Your task to perform on an android device: clear all cookies in the chrome app Image 0: 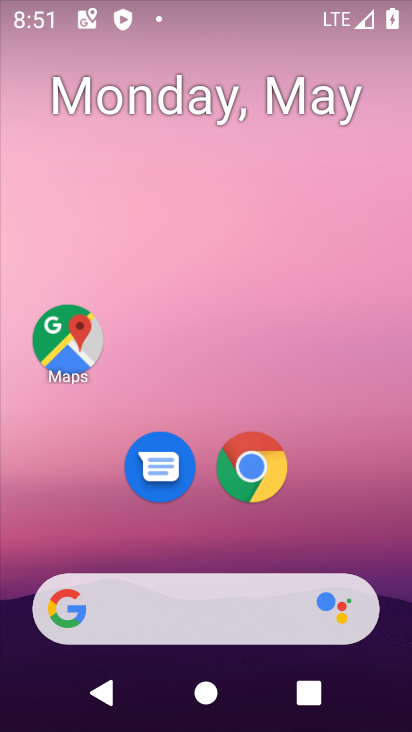
Step 0: click (263, 454)
Your task to perform on an android device: clear all cookies in the chrome app Image 1: 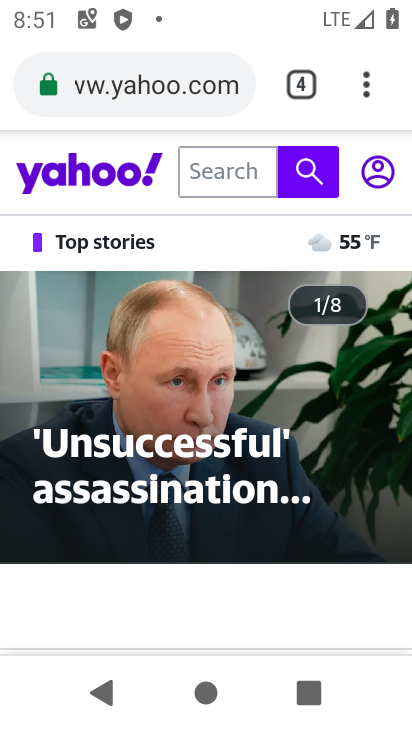
Step 1: click (369, 87)
Your task to perform on an android device: clear all cookies in the chrome app Image 2: 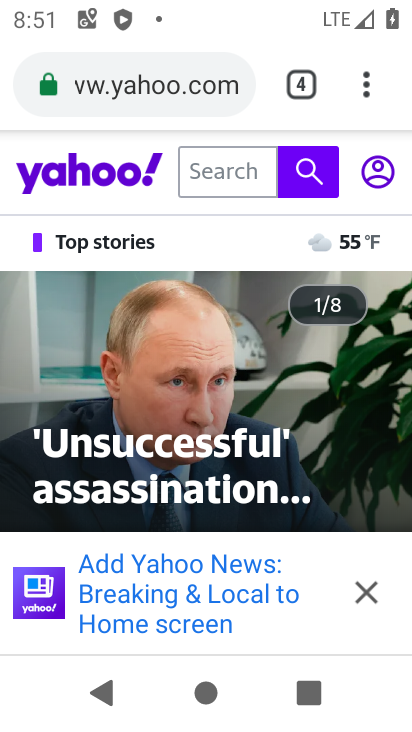
Step 2: click (371, 83)
Your task to perform on an android device: clear all cookies in the chrome app Image 3: 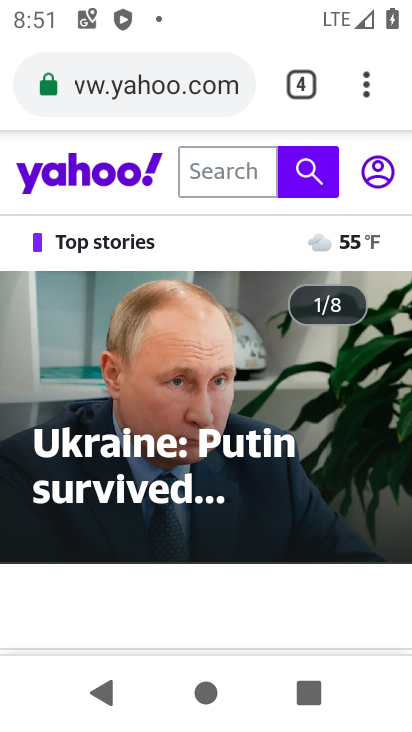
Step 3: click (368, 72)
Your task to perform on an android device: clear all cookies in the chrome app Image 4: 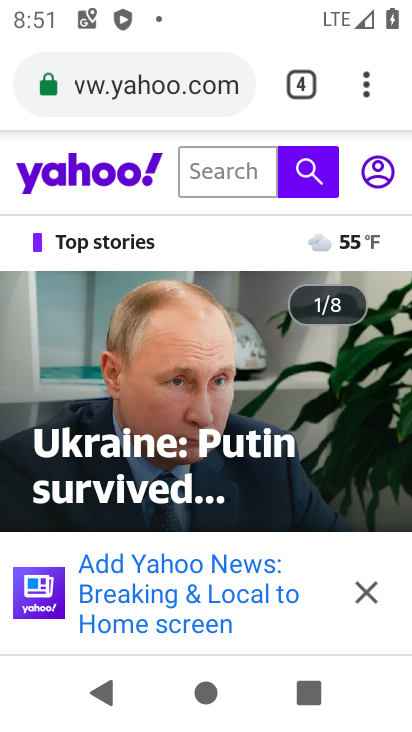
Step 4: click (359, 85)
Your task to perform on an android device: clear all cookies in the chrome app Image 5: 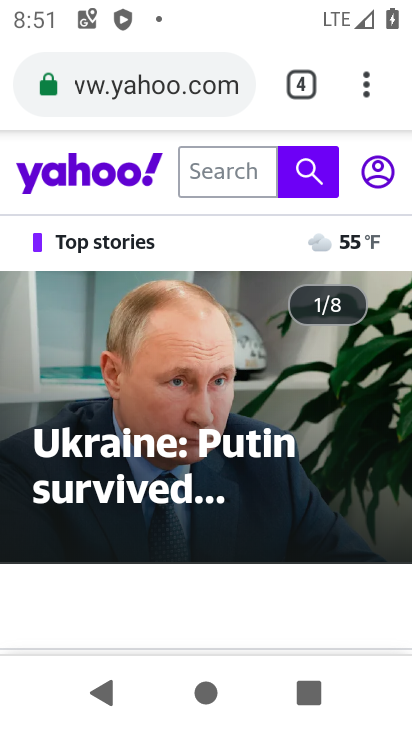
Step 5: click (366, 84)
Your task to perform on an android device: clear all cookies in the chrome app Image 6: 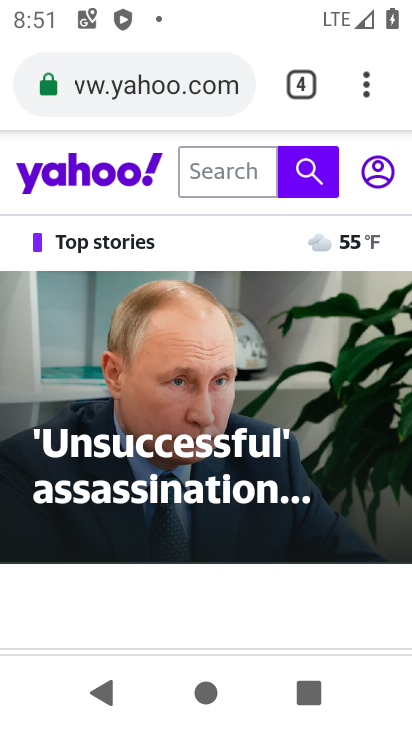
Step 6: click (372, 85)
Your task to perform on an android device: clear all cookies in the chrome app Image 7: 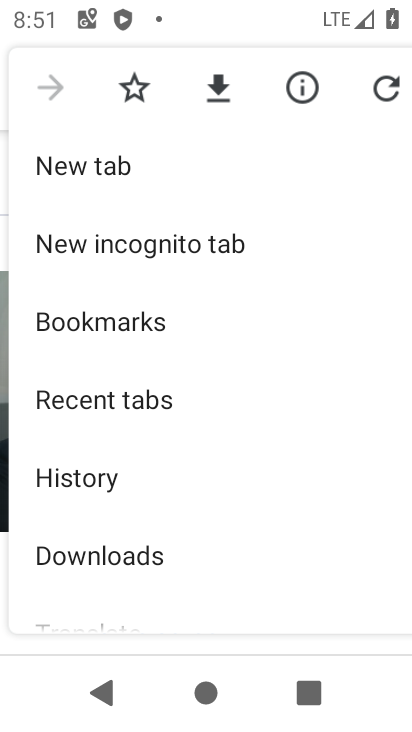
Step 7: click (144, 481)
Your task to perform on an android device: clear all cookies in the chrome app Image 8: 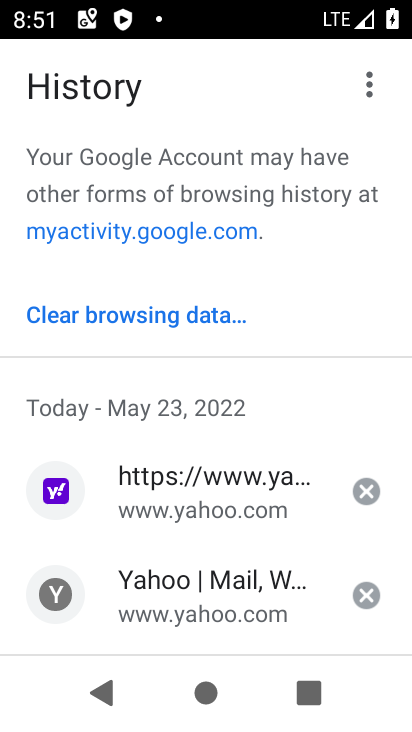
Step 8: click (170, 310)
Your task to perform on an android device: clear all cookies in the chrome app Image 9: 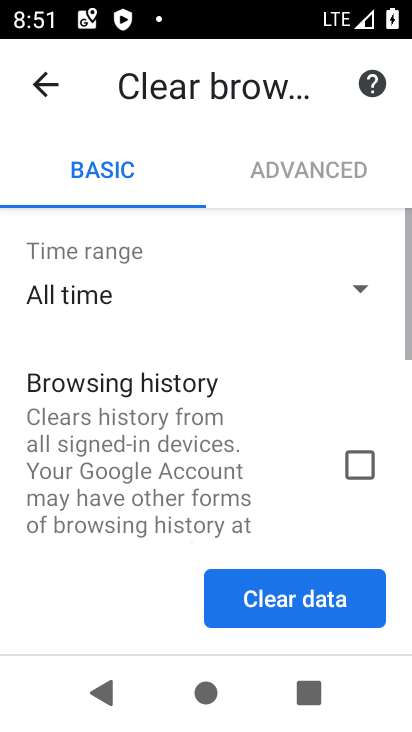
Step 9: click (304, 593)
Your task to perform on an android device: clear all cookies in the chrome app Image 10: 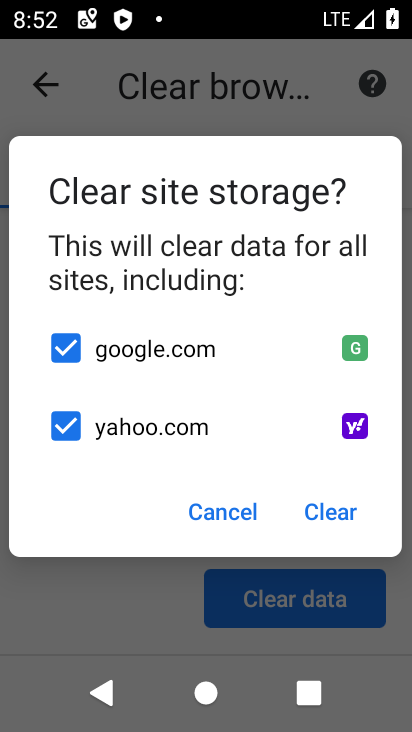
Step 10: click (329, 507)
Your task to perform on an android device: clear all cookies in the chrome app Image 11: 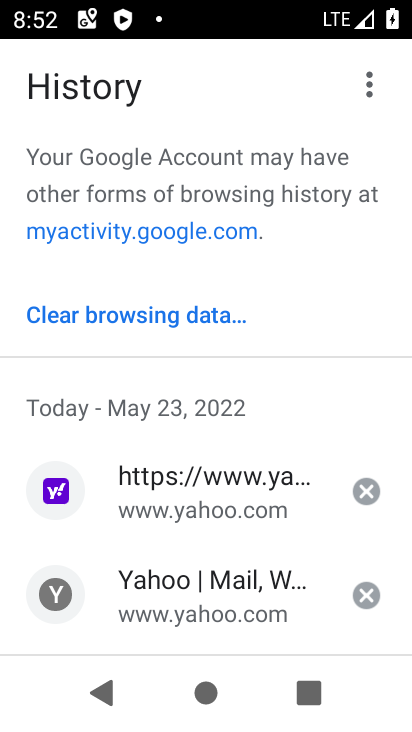
Step 11: task complete